Your task to perform on an android device: Open Amazon Image 0: 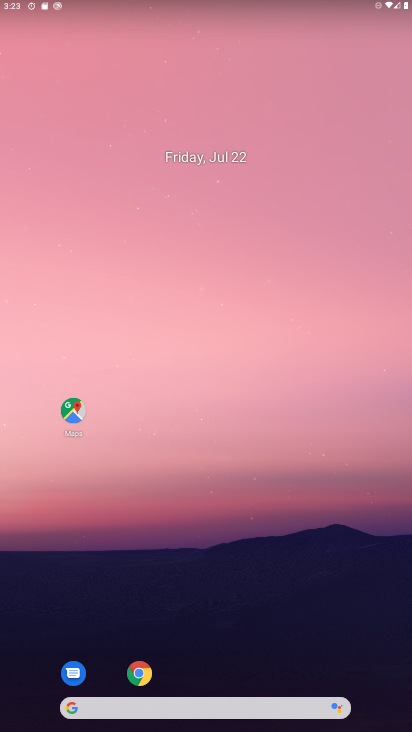
Step 0: click (307, 36)
Your task to perform on an android device: Open Amazon Image 1: 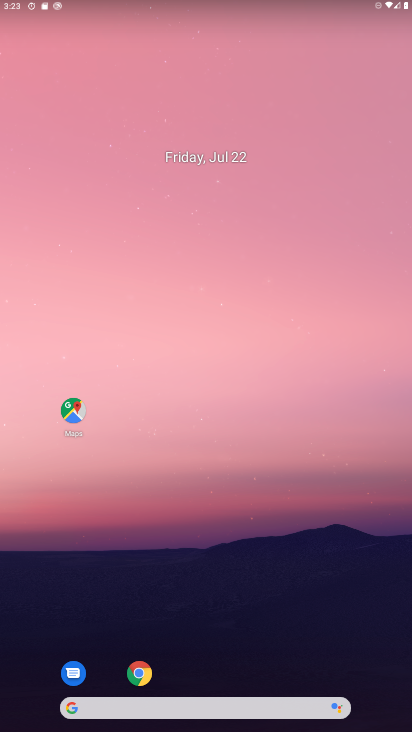
Step 1: drag from (166, 668) to (225, 221)
Your task to perform on an android device: Open Amazon Image 2: 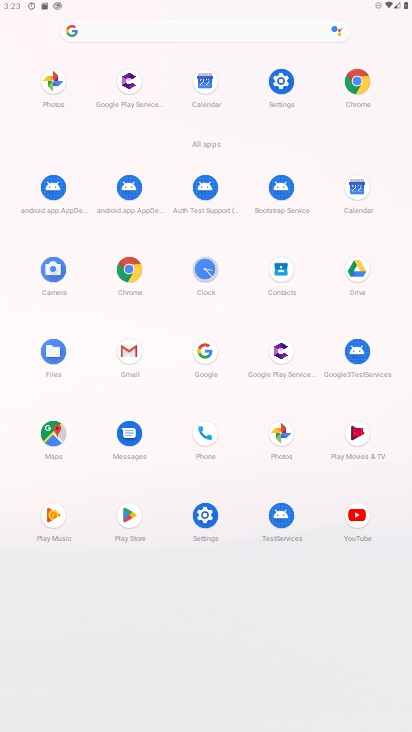
Step 2: click (131, 269)
Your task to perform on an android device: Open Amazon Image 3: 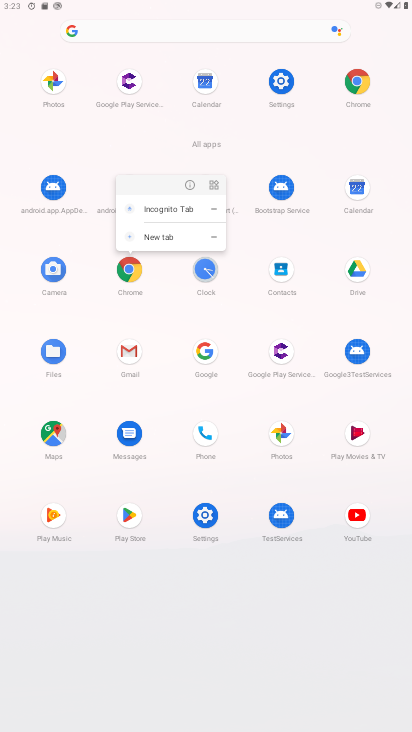
Step 3: click (191, 177)
Your task to perform on an android device: Open Amazon Image 4: 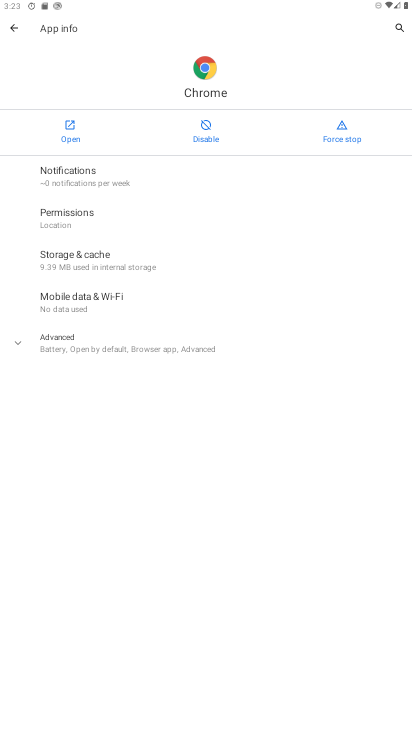
Step 4: click (66, 127)
Your task to perform on an android device: Open Amazon Image 5: 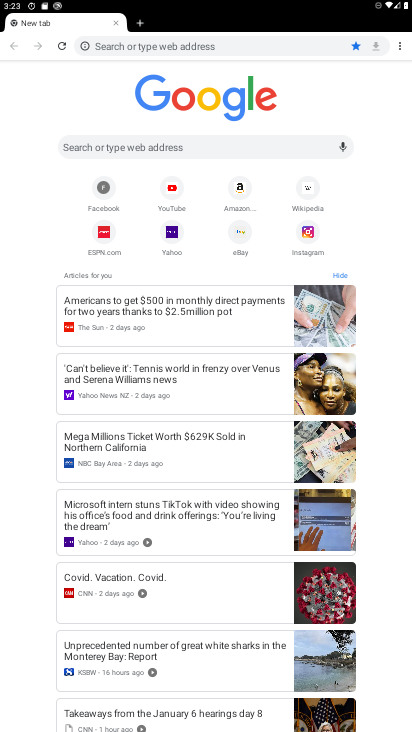
Step 5: click (235, 192)
Your task to perform on an android device: Open Amazon Image 6: 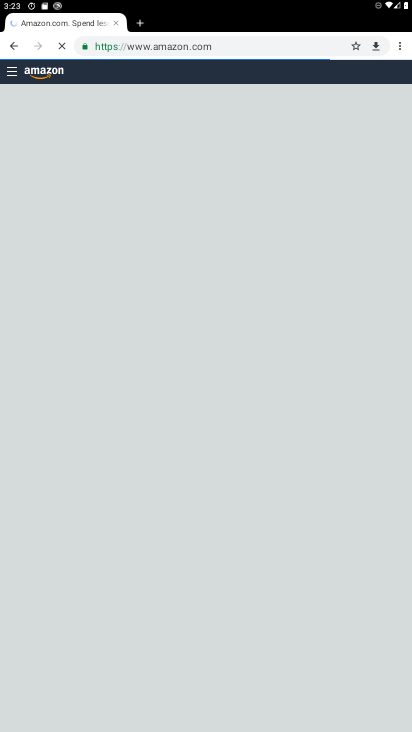
Step 6: task complete